Your task to perform on an android device: turn off airplane mode Image 0: 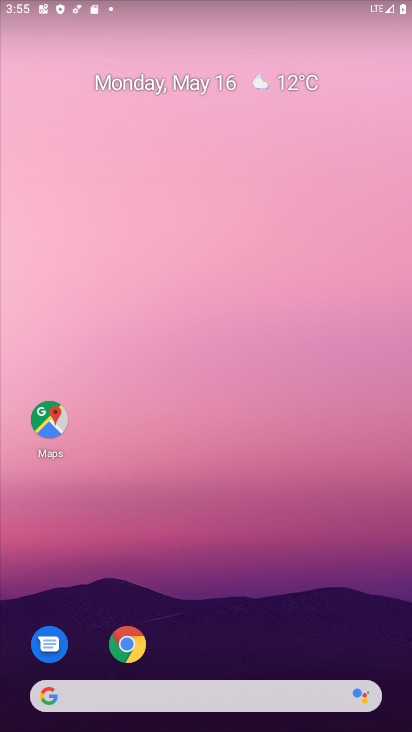
Step 0: drag from (343, 12) to (256, 656)
Your task to perform on an android device: turn off airplane mode Image 1: 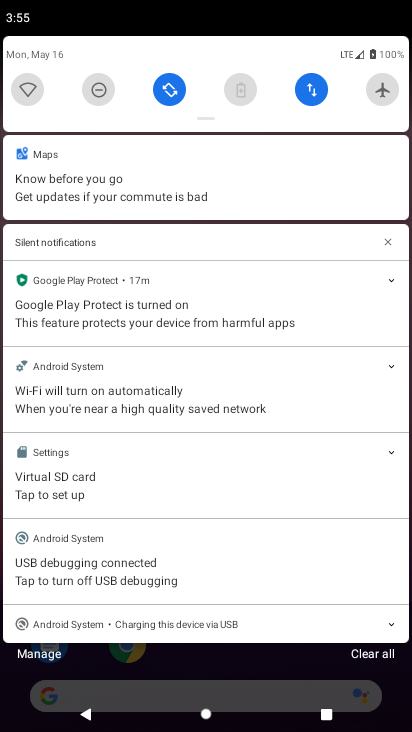
Step 1: task complete